Your task to perform on an android device: Go to Google maps Image 0: 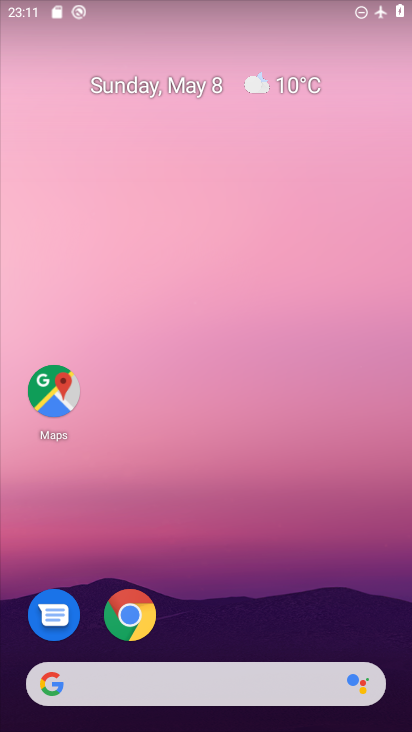
Step 0: drag from (277, 639) to (318, 137)
Your task to perform on an android device: Go to Google maps Image 1: 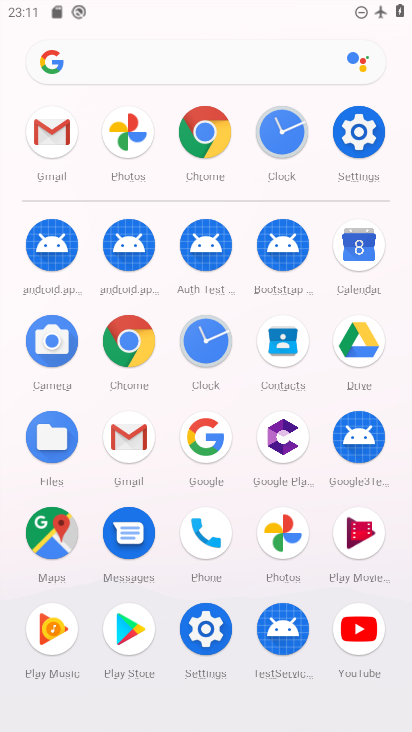
Step 1: click (58, 532)
Your task to perform on an android device: Go to Google maps Image 2: 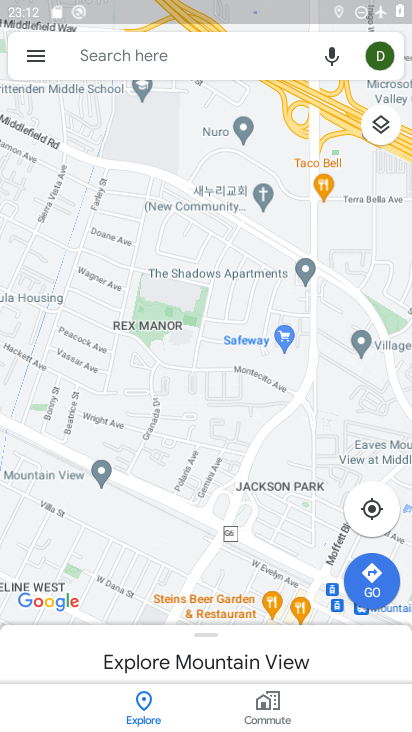
Step 2: task complete